Your task to perform on an android device: toggle improve location accuracy Image 0: 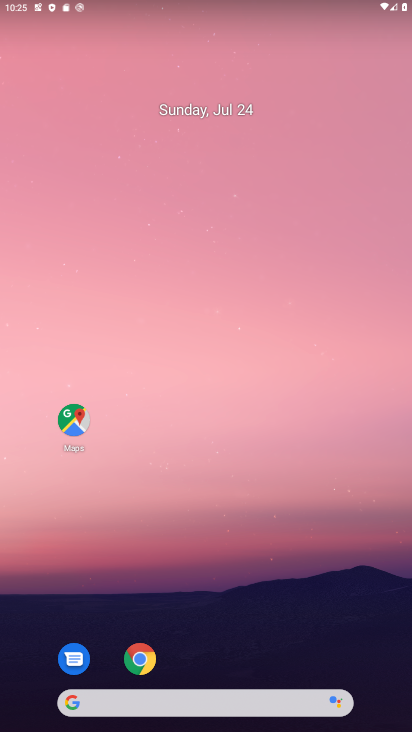
Step 0: click (129, 654)
Your task to perform on an android device: toggle improve location accuracy Image 1: 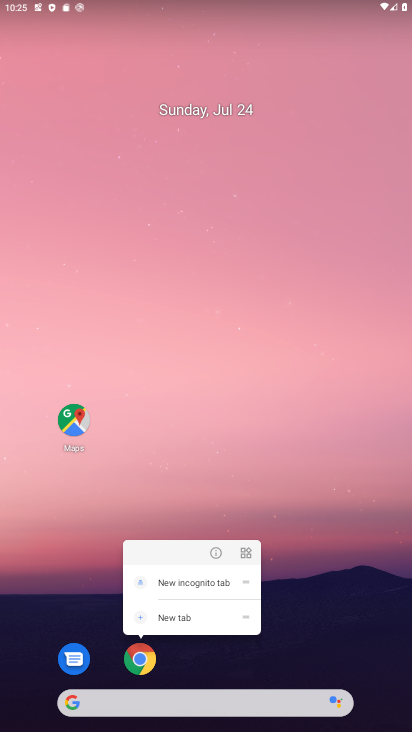
Step 1: press home button
Your task to perform on an android device: toggle improve location accuracy Image 2: 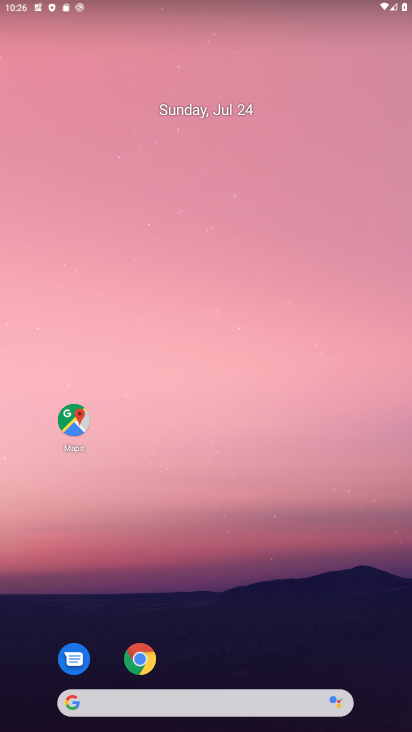
Step 2: drag from (374, 681) to (319, 38)
Your task to perform on an android device: toggle improve location accuracy Image 3: 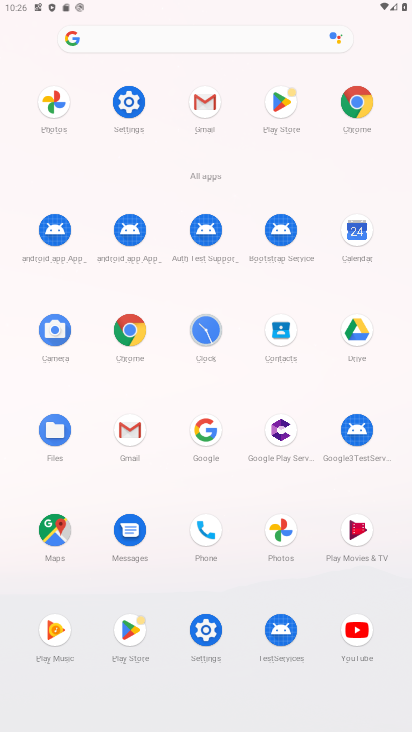
Step 3: click (135, 110)
Your task to perform on an android device: toggle improve location accuracy Image 4: 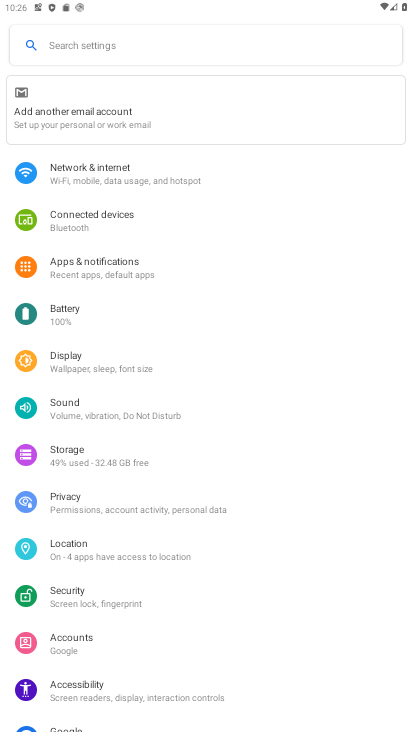
Step 4: click (67, 541)
Your task to perform on an android device: toggle improve location accuracy Image 5: 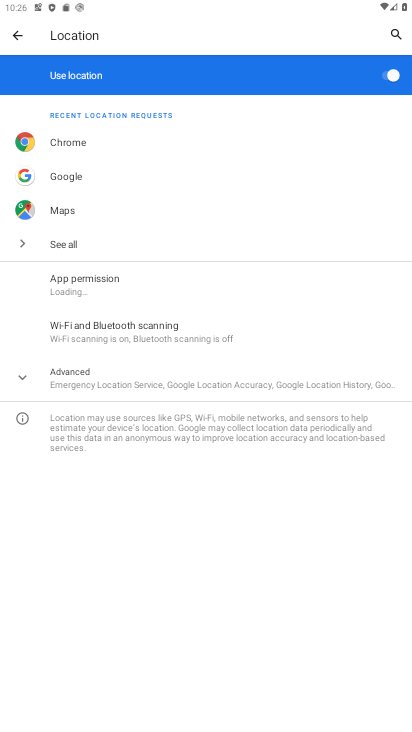
Step 5: click (23, 380)
Your task to perform on an android device: toggle improve location accuracy Image 6: 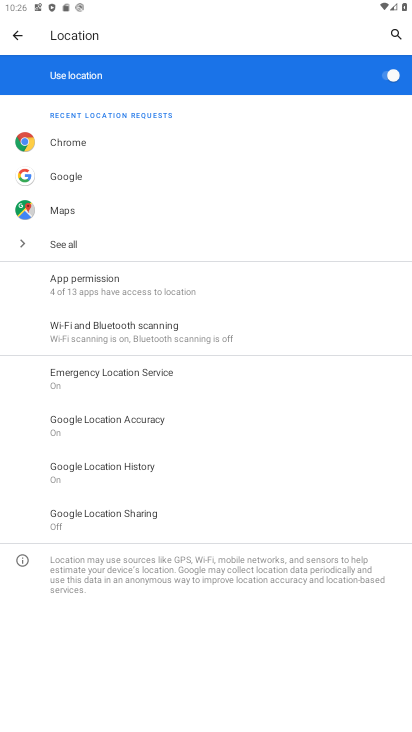
Step 6: click (158, 422)
Your task to perform on an android device: toggle improve location accuracy Image 7: 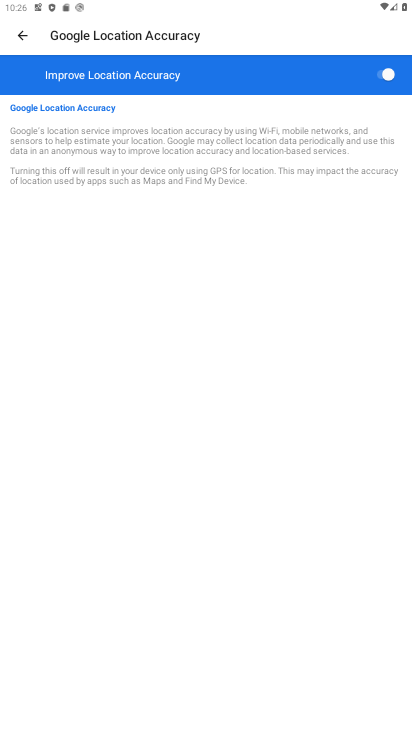
Step 7: click (382, 78)
Your task to perform on an android device: toggle improve location accuracy Image 8: 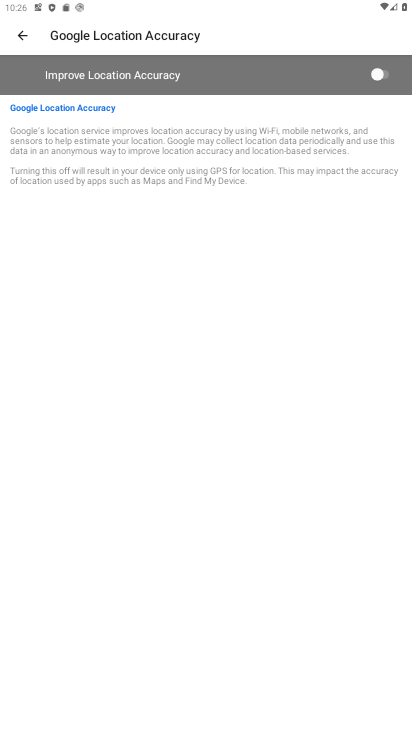
Step 8: task complete